Your task to perform on an android device: What's the weather? Image 0: 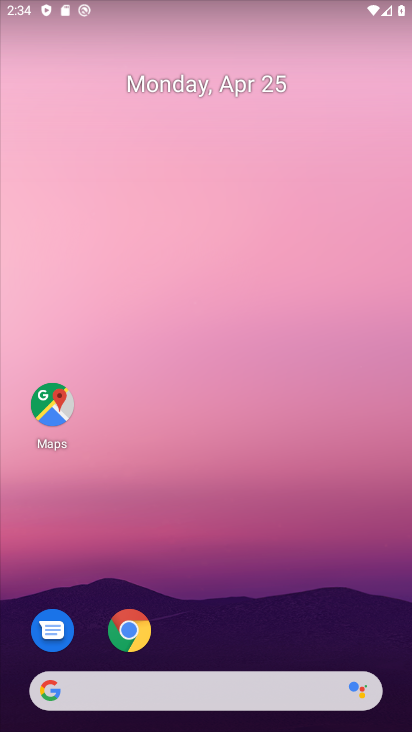
Step 0: press home button
Your task to perform on an android device: What's the weather? Image 1: 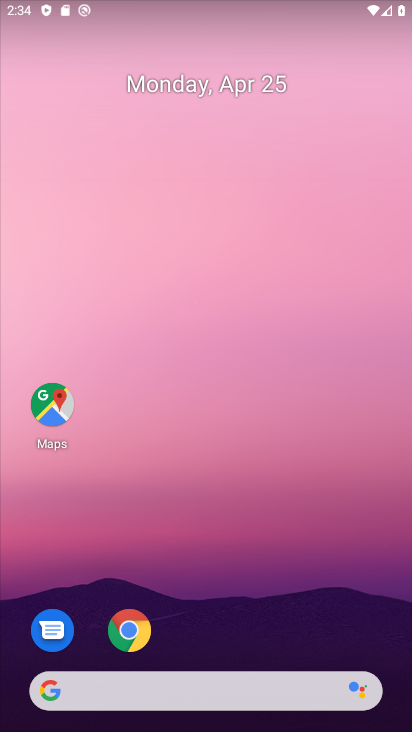
Step 1: click (131, 631)
Your task to perform on an android device: What's the weather? Image 2: 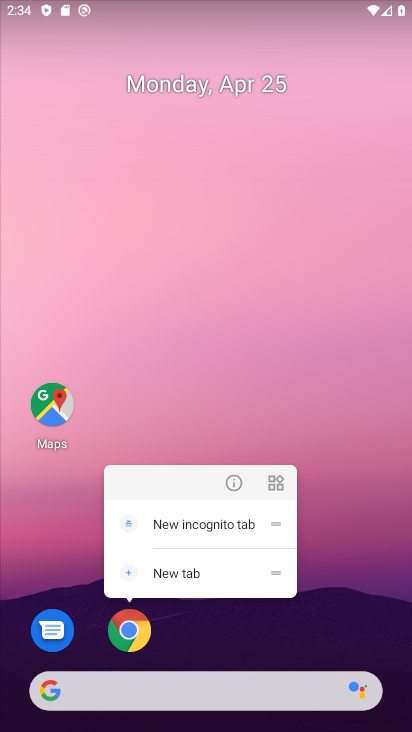
Step 2: click (139, 627)
Your task to perform on an android device: What's the weather? Image 3: 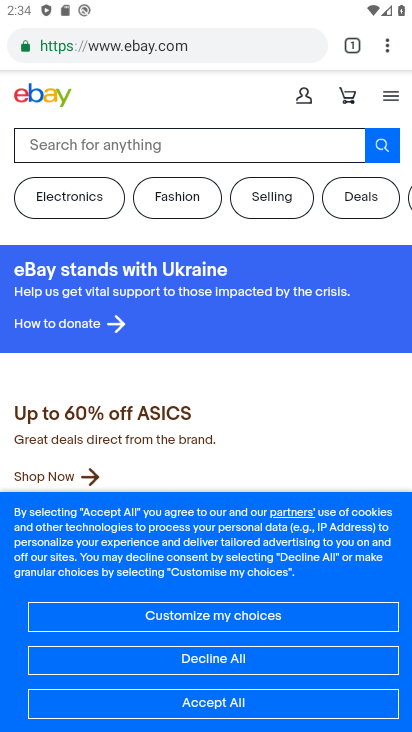
Step 3: click (350, 48)
Your task to perform on an android device: What's the weather? Image 4: 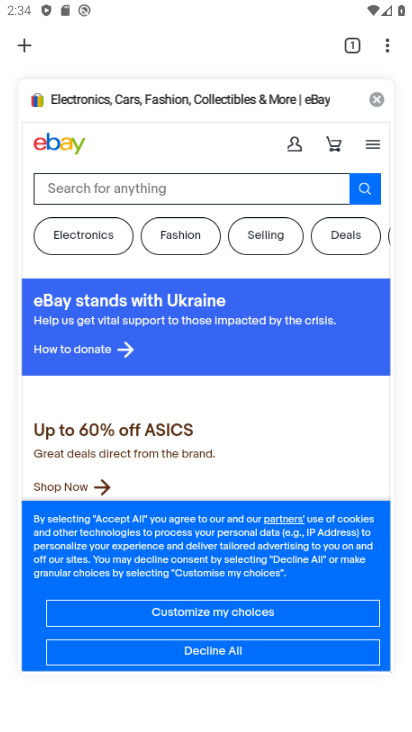
Step 4: click (21, 40)
Your task to perform on an android device: What's the weather? Image 5: 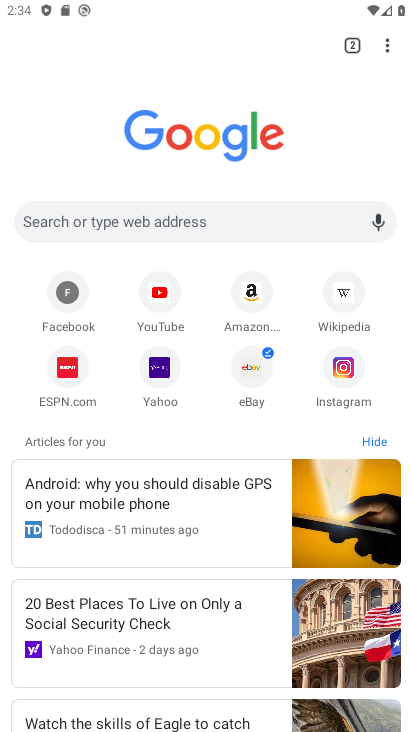
Step 5: click (177, 220)
Your task to perform on an android device: What's the weather? Image 6: 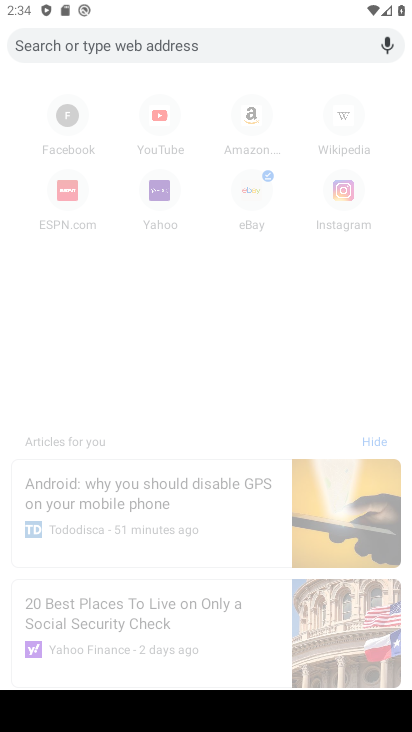
Step 6: type "whats the weather"
Your task to perform on an android device: What's the weather? Image 7: 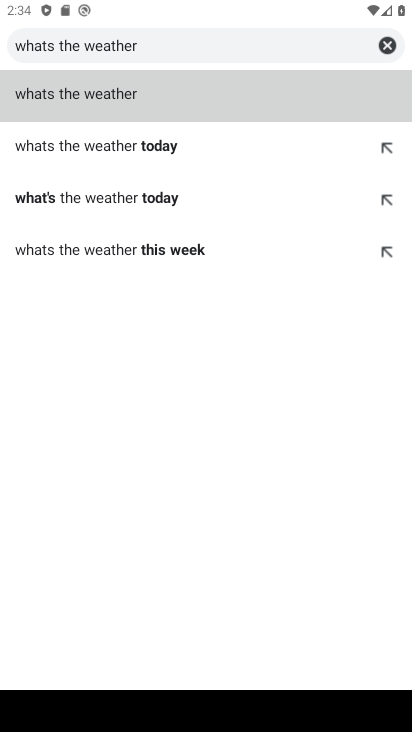
Step 7: click (72, 99)
Your task to perform on an android device: What's the weather? Image 8: 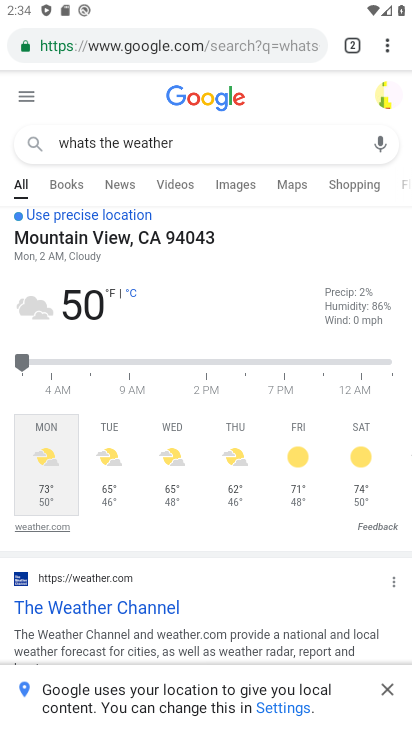
Step 8: task complete